Your task to perform on an android device: visit the assistant section in the google photos Image 0: 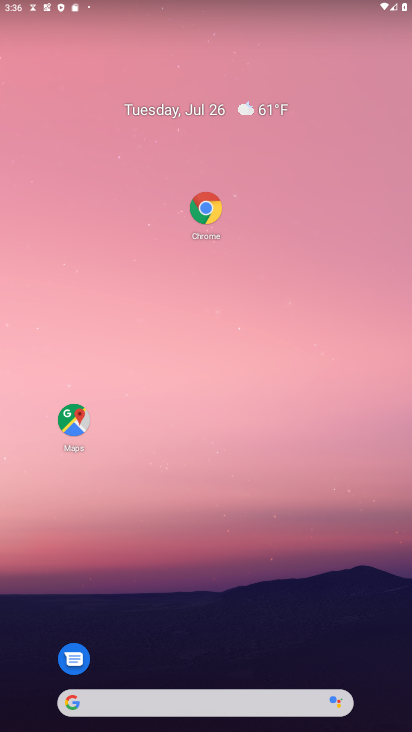
Step 0: drag from (215, 472) to (215, 158)
Your task to perform on an android device: visit the assistant section in the google photos Image 1: 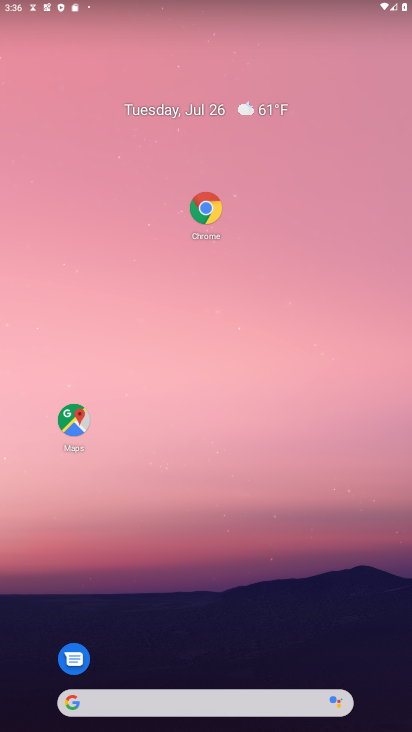
Step 1: drag from (185, 403) to (185, 257)
Your task to perform on an android device: visit the assistant section in the google photos Image 2: 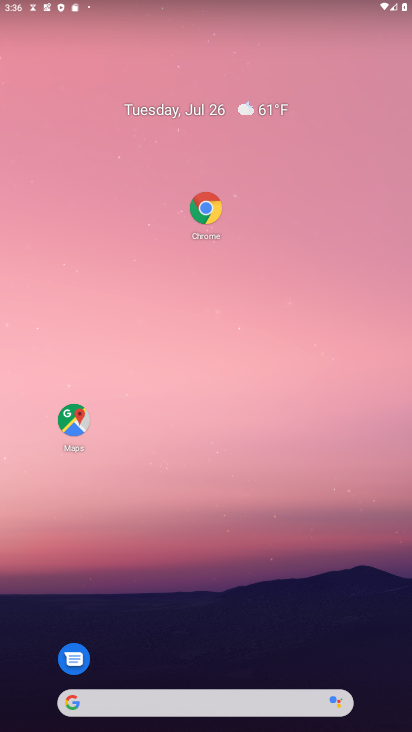
Step 2: drag from (197, 593) to (156, 115)
Your task to perform on an android device: visit the assistant section in the google photos Image 3: 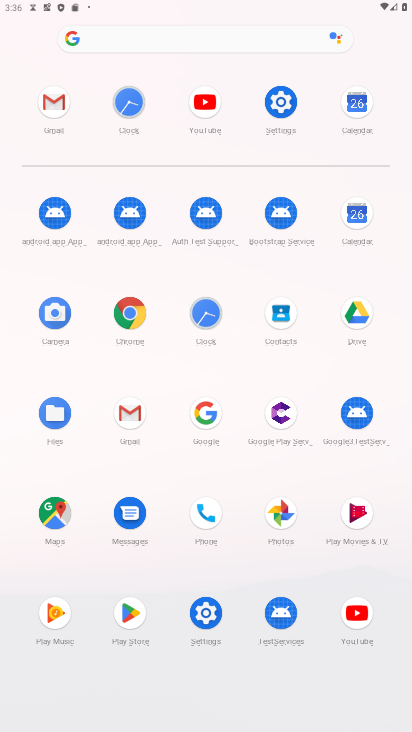
Step 3: click (272, 513)
Your task to perform on an android device: visit the assistant section in the google photos Image 4: 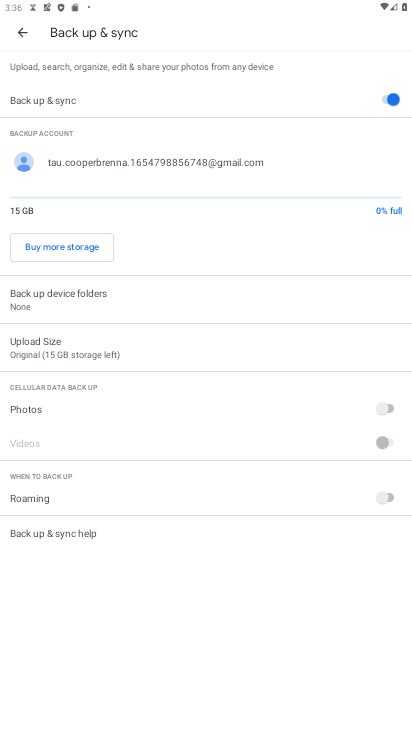
Step 4: click (22, 39)
Your task to perform on an android device: visit the assistant section in the google photos Image 5: 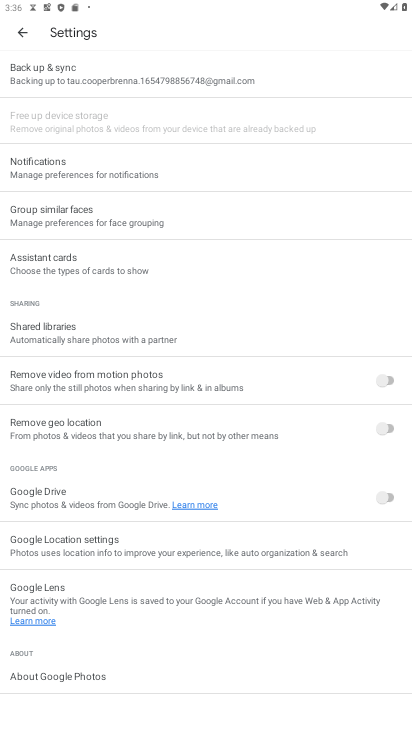
Step 5: click (22, 39)
Your task to perform on an android device: visit the assistant section in the google photos Image 6: 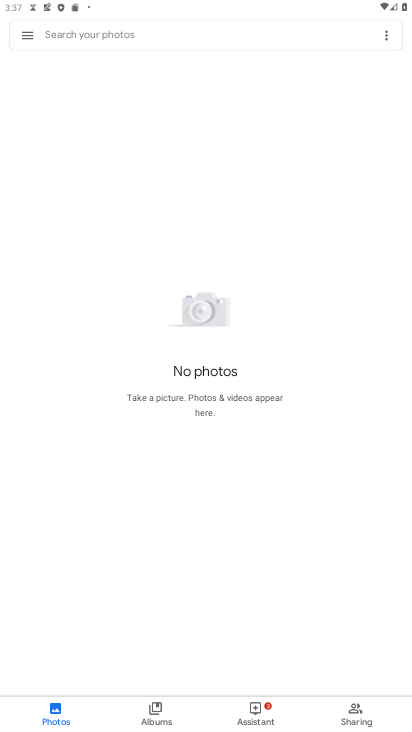
Step 6: click (256, 718)
Your task to perform on an android device: visit the assistant section in the google photos Image 7: 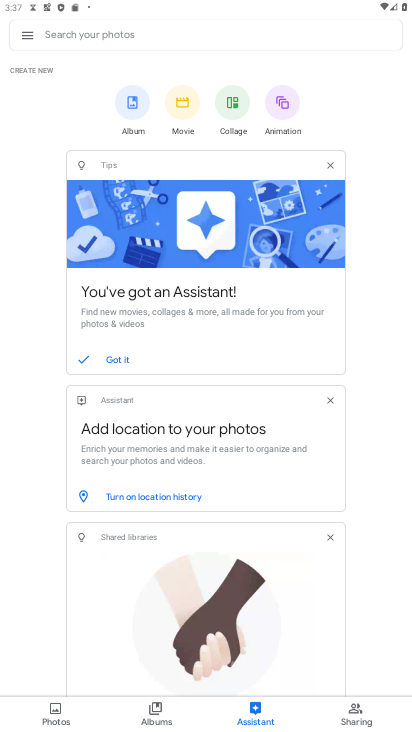
Step 7: task complete